Your task to perform on an android device: Toggle the flashlight Image 0: 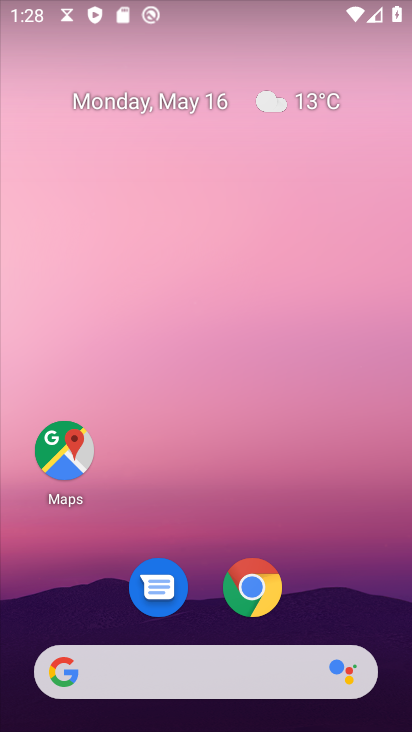
Step 0: drag from (284, 1) to (214, 496)
Your task to perform on an android device: Toggle the flashlight Image 1: 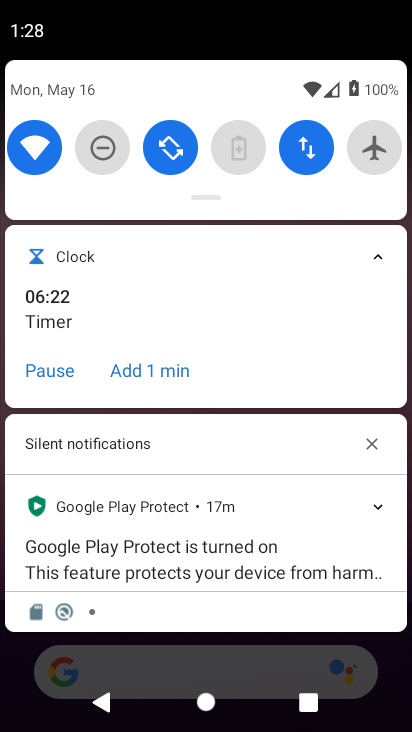
Step 1: drag from (256, 144) to (214, 490)
Your task to perform on an android device: Toggle the flashlight Image 2: 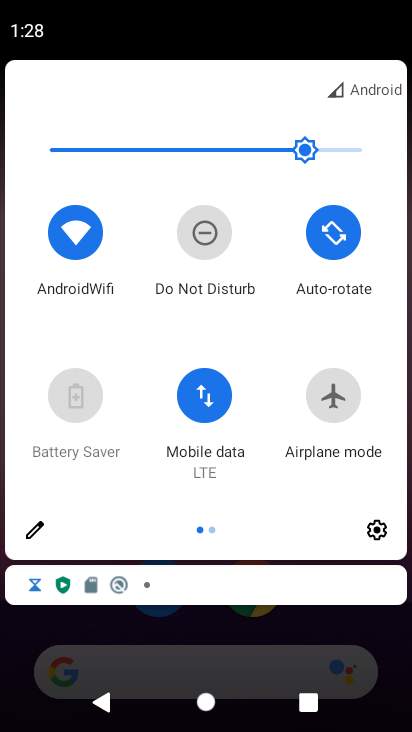
Step 2: drag from (361, 312) to (9, 443)
Your task to perform on an android device: Toggle the flashlight Image 3: 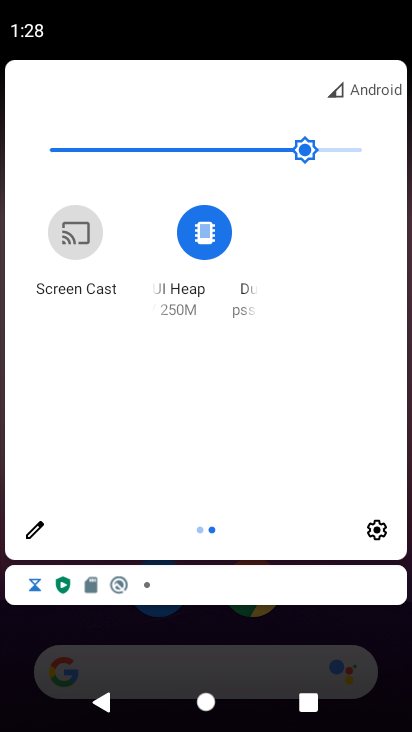
Step 3: click (42, 530)
Your task to perform on an android device: Toggle the flashlight Image 4: 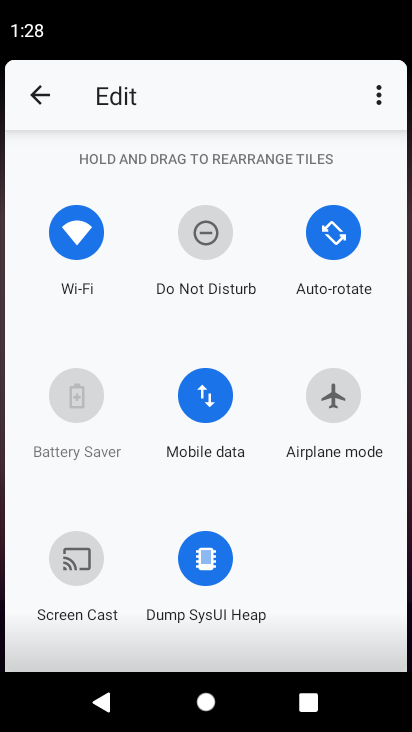
Step 4: task complete